Your task to perform on an android device: Go to Google maps Image 0: 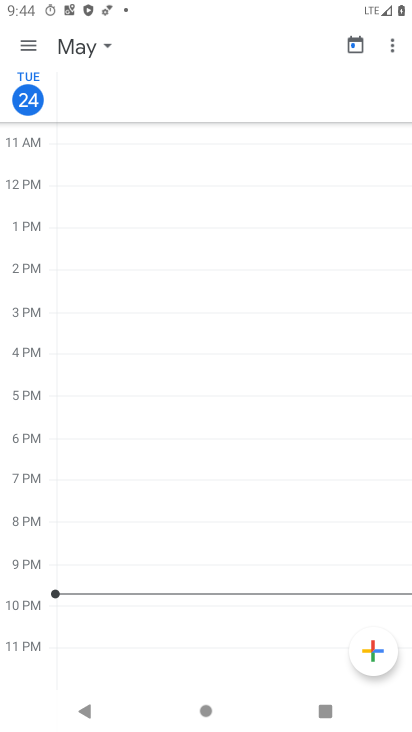
Step 0: press home button
Your task to perform on an android device: Go to Google maps Image 1: 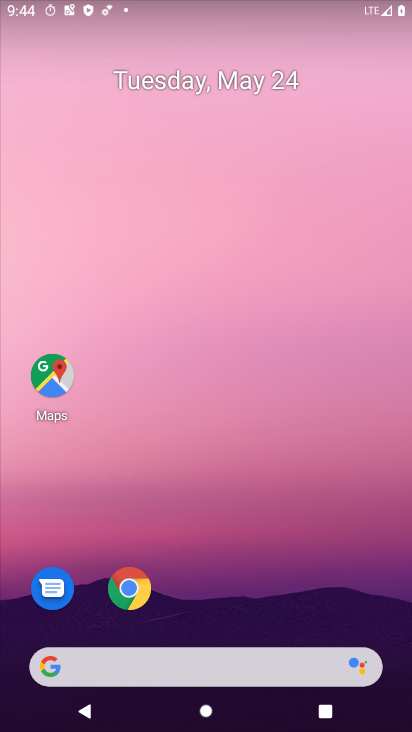
Step 1: click (56, 375)
Your task to perform on an android device: Go to Google maps Image 2: 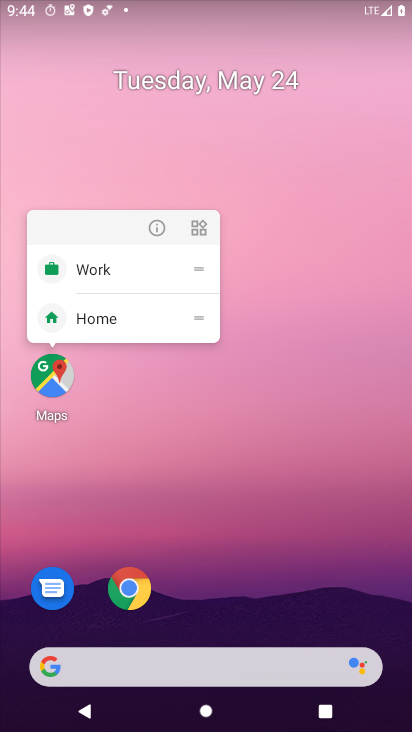
Step 2: click (34, 370)
Your task to perform on an android device: Go to Google maps Image 3: 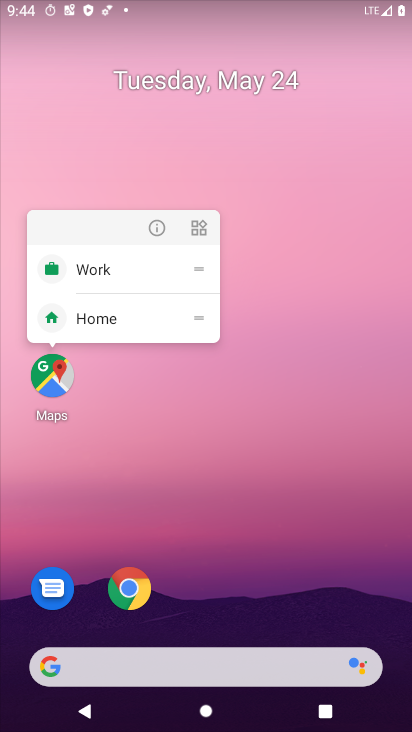
Step 3: click (53, 375)
Your task to perform on an android device: Go to Google maps Image 4: 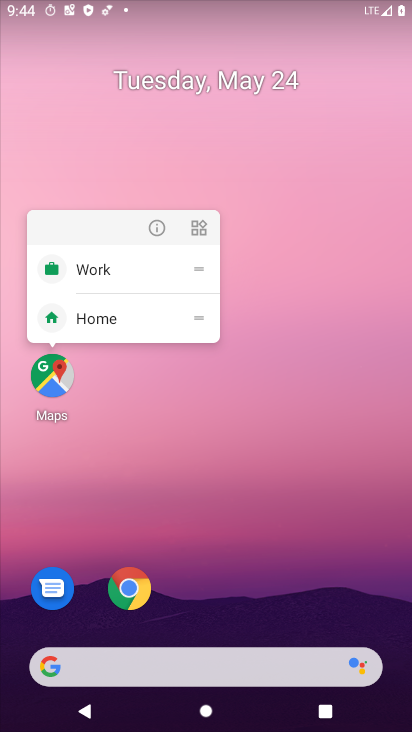
Step 4: click (47, 372)
Your task to perform on an android device: Go to Google maps Image 5: 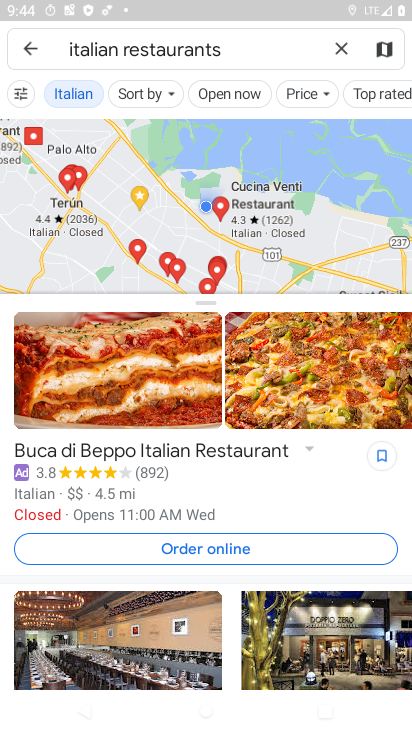
Step 5: task complete